Your task to perform on an android device: turn on bluetooth scan Image 0: 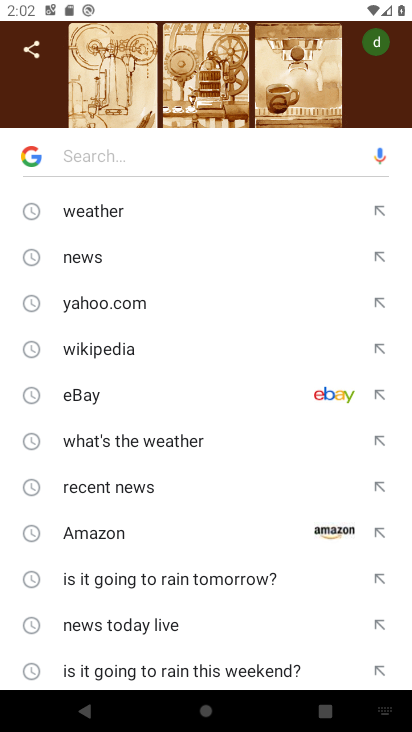
Step 0: press home button
Your task to perform on an android device: turn on bluetooth scan Image 1: 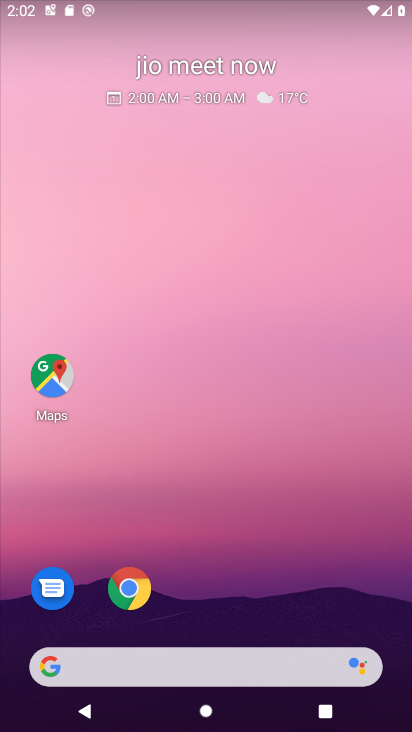
Step 1: drag from (257, 699) to (255, 0)
Your task to perform on an android device: turn on bluetooth scan Image 2: 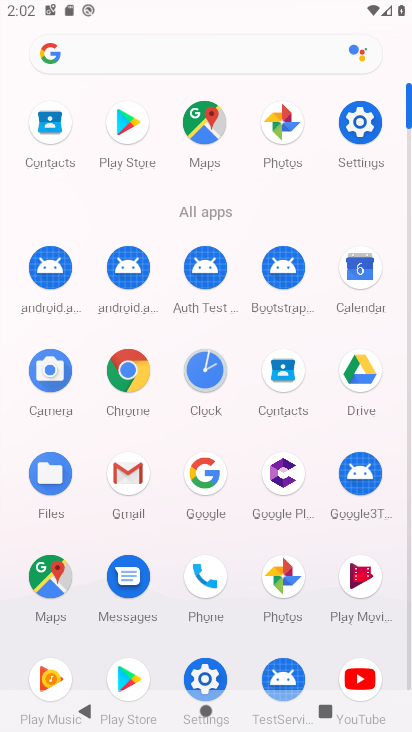
Step 2: click (365, 136)
Your task to perform on an android device: turn on bluetooth scan Image 3: 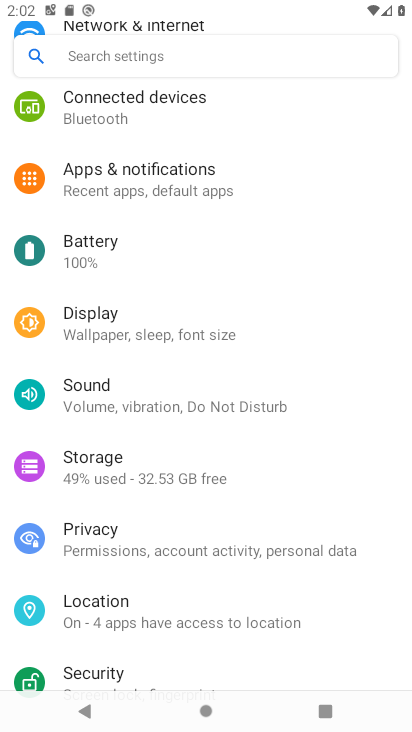
Step 3: click (166, 614)
Your task to perform on an android device: turn on bluetooth scan Image 4: 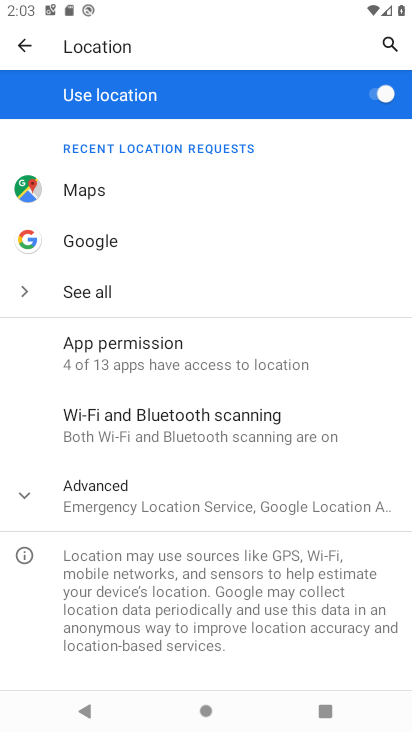
Step 4: click (217, 425)
Your task to perform on an android device: turn on bluetooth scan Image 5: 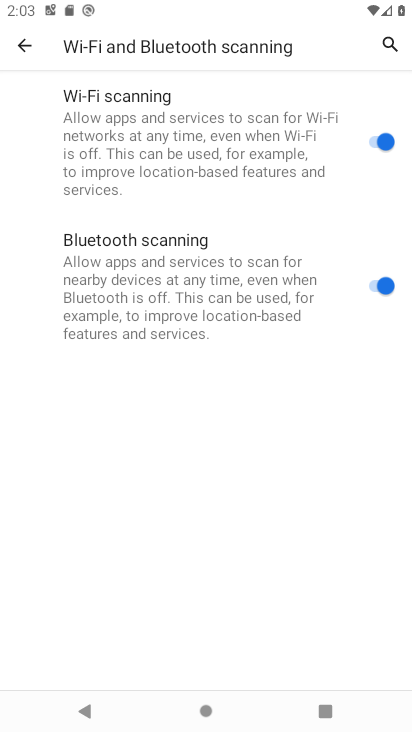
Step 5: task complete